Your task to perform on an android device: turn pop-ups off in chrome Image 0: 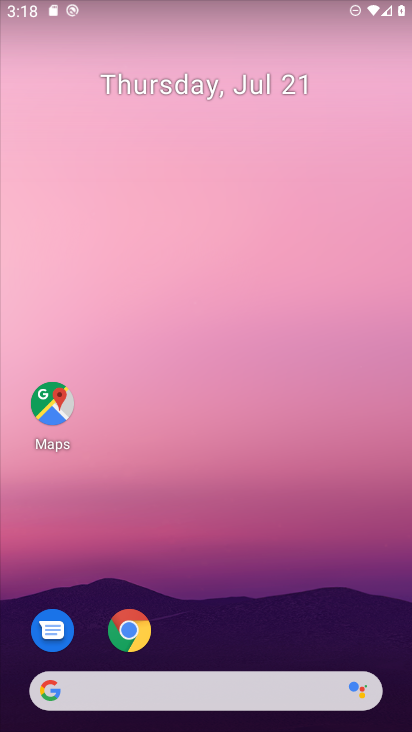
Step 0: click (122, 649)
Your task to perform on an android device: turn pop-ups off in chrome Image 1: 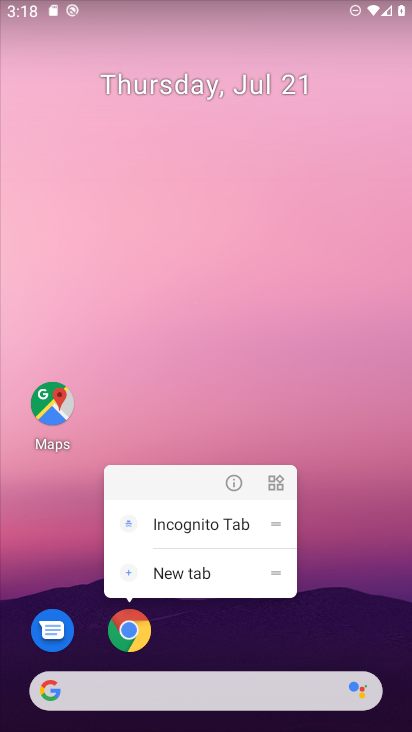
Step 1: click (142, 616)
Your task to perform on an android device: turn pop-ups off in chrome Image 2: 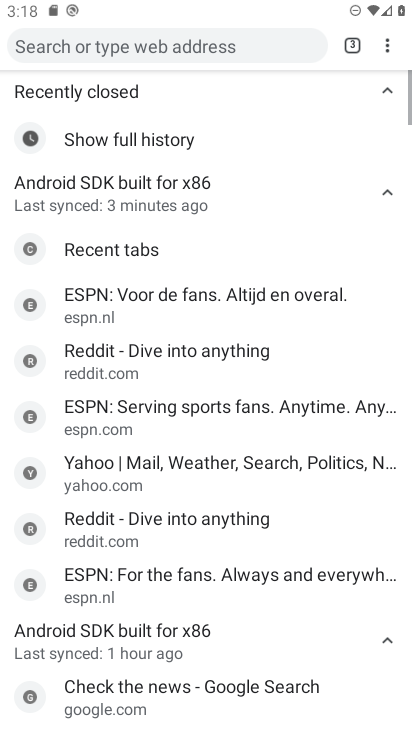
Step 2: drag from (384, 32) to (240, 392)
Your task to perform on an android device: turn pop-ups off in chrome Image 3: 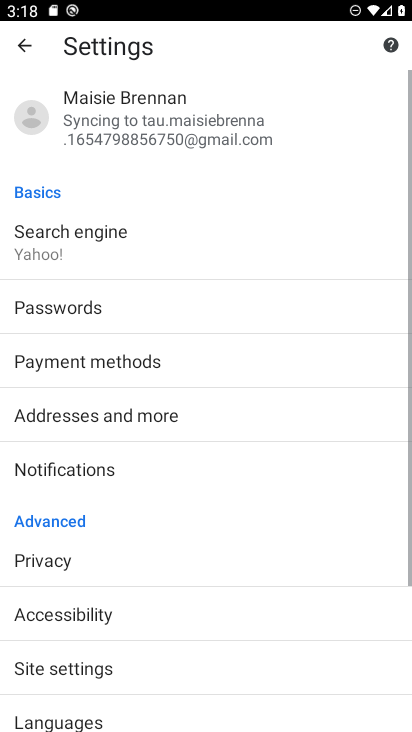
Step 3: drag from (142, 645) to (236, 252)
Your task to perform on an android device: turn pop-ups off in chrome Image 4: 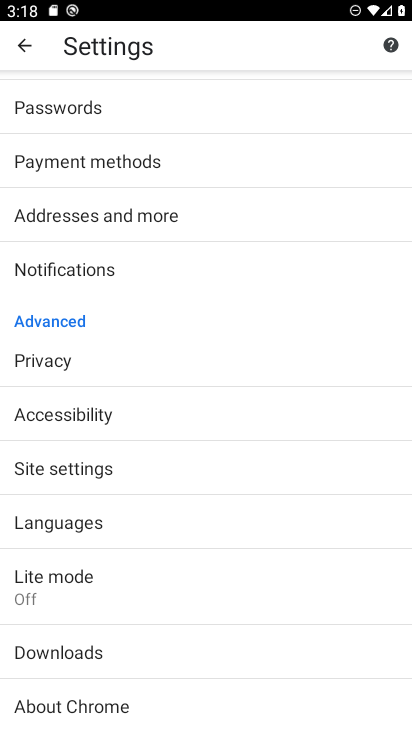
Step 4: click (61, 476)
Your task to perform on an android device: turn pop-ups off in chrome Image 5: 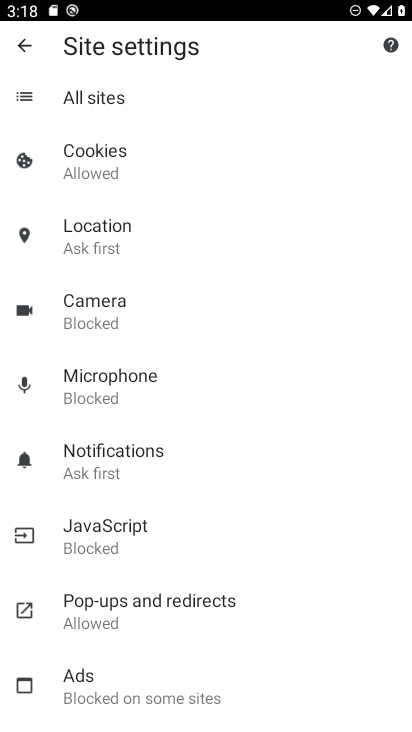
Step 5: click (112, 606)
Your task to perform on an android device: turn pop-ups off in chrome Image 6: 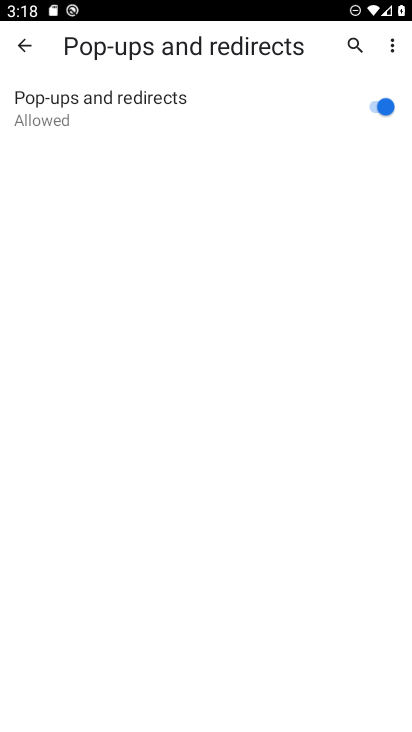
Step 6: click (382, 105)
Your task to perform on an android device: turn pop-ups off in chrome Image 7: 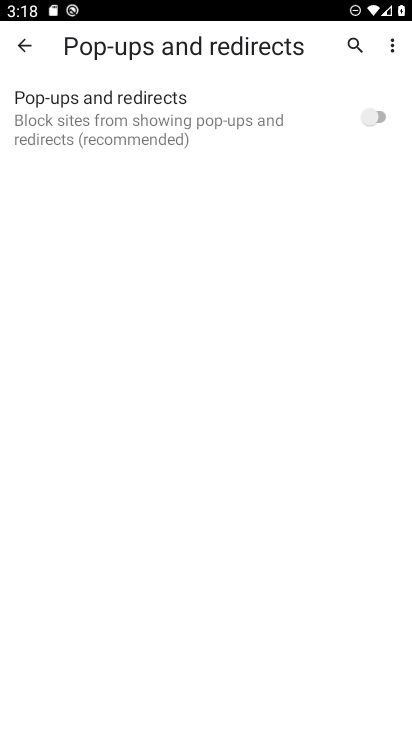
Step 7: task complete